Your task to perform on an android device: change notification settings in the gmail app Image 0: 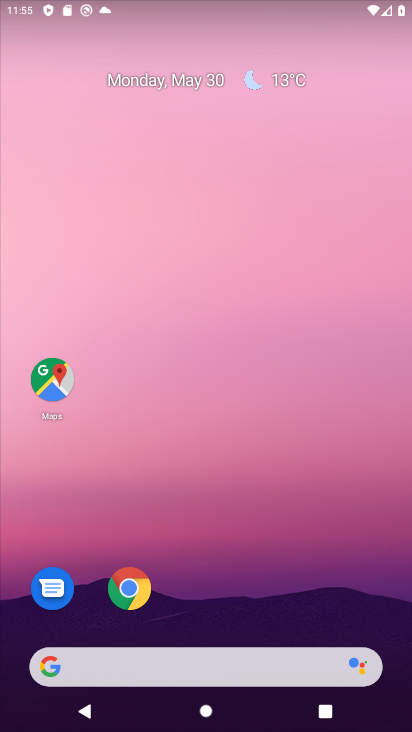
Step 0: drag from (399, 667) to (325, 46)
Your task to perform on an android device: change notification settings in the gmail app Image 1: 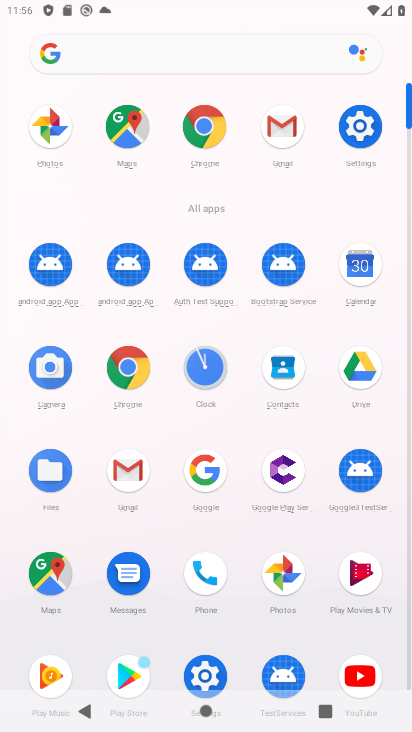
Step 1: click (138, 468)
Your task to perform on an android device: change notification settings in the gmail app Image 2: 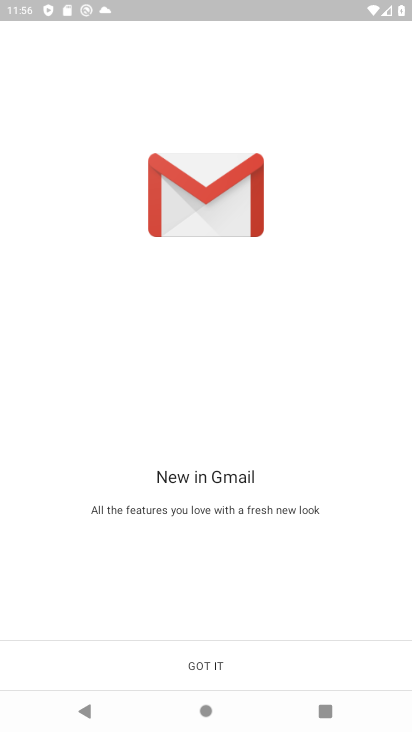
Step 2: click (220, 661)
Your task to perform on an android device: change notification settings in the gmail app Image 3: 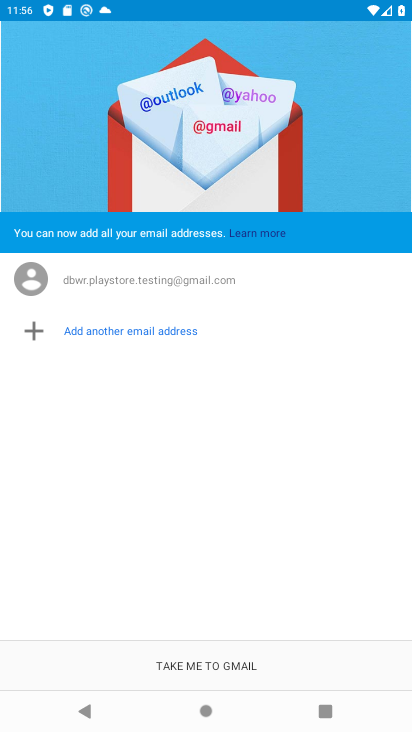
Step 3: click (220, 662)
Your task to perform on an android device: change notification settings in the gmail app Image 4: 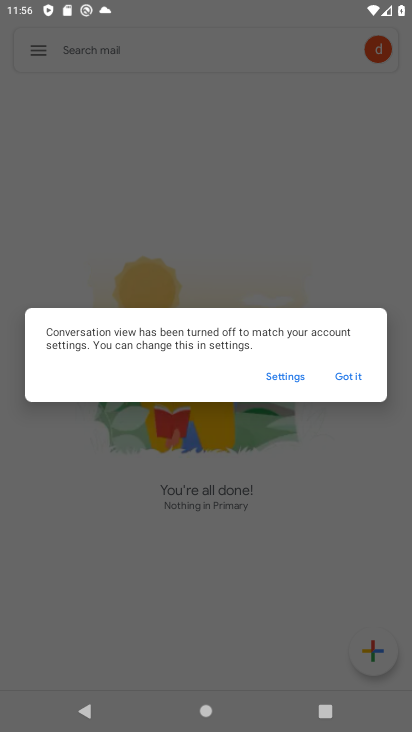
Step 4: click (351, 365)
Your task to perform on an android device: change notification settings in the gmail app Image 5: 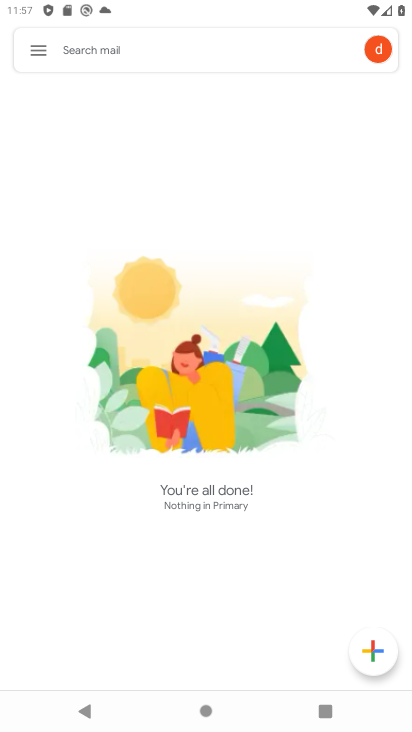
Step 5: press back button
Your task to perform on an android device: change notification settings in the gmail app Image 6: 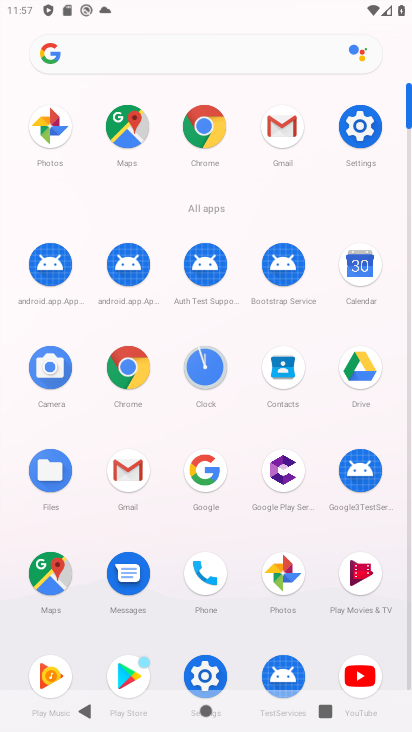
Step 6: click (138, 472)
Your task to perform on an android device: change notification settings in the gmail app Image 7: 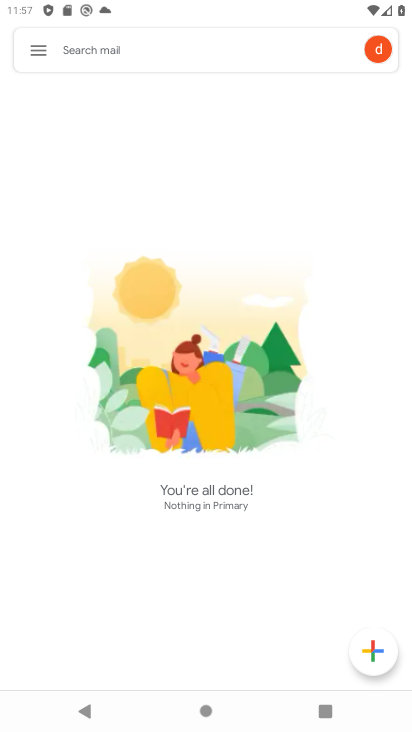
Step 7: click (24, 51)
Your task to perform on an android device: change notification settings in the gmail app Image 8: 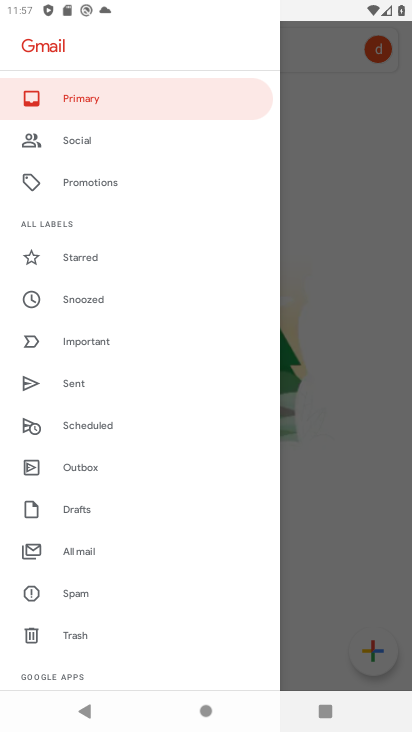
Step 8: drag from (224, 593) to (234, 316)
Your task to perform on an android device: change notification settings in the gmail app Image 9: 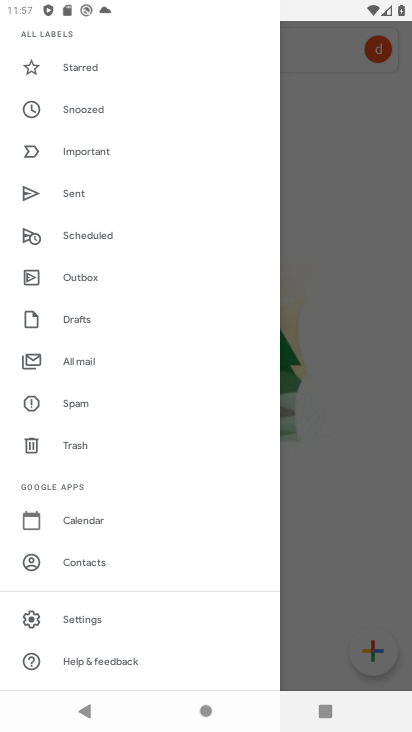
Step 9: click (82, 615)
Your task to perform on an android device: change notification settings in the gmail app Image 10: 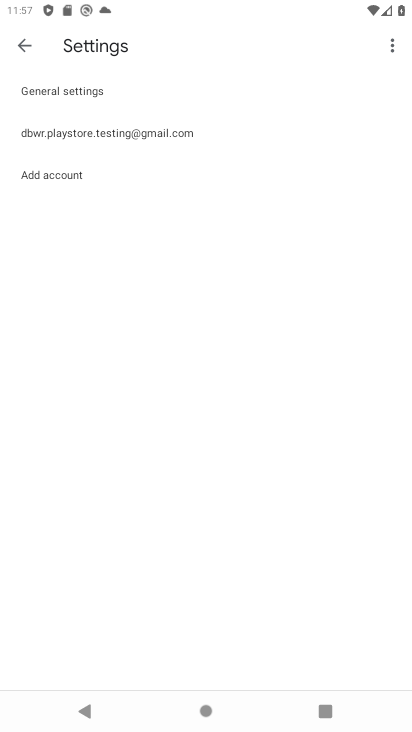
Step 10: click (80, 88)
Your task to perform on an android device: change notification settings in the gmail app Image 11: 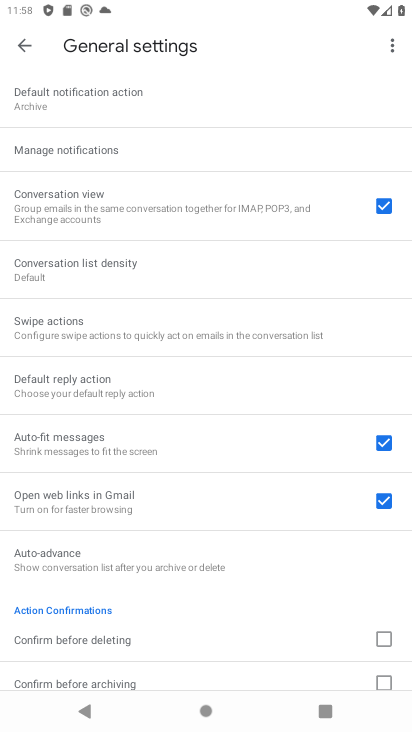
Step 11: drag from (223, 616) to (211, 313)
Your task to perform on an android device: change notification settings in the gmail app Image 12: 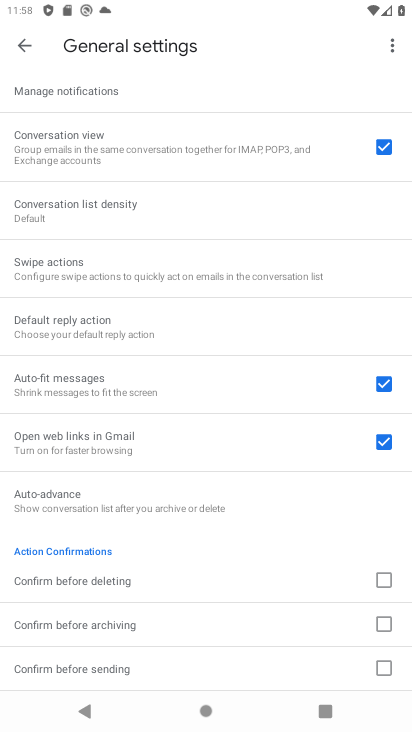
Step 12: drag from (143, 159) to (158, 452)
Your task to perform on an android device: change notification settings in the gmail app Image 13: 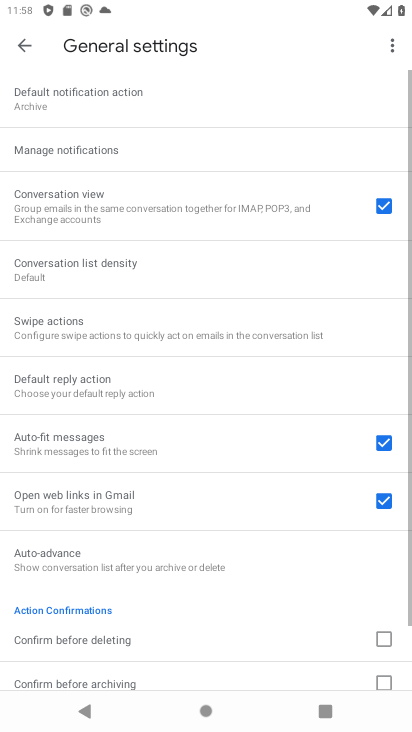
Step 13: click (90, 148)
Your task to perform on an android device: change notification settings in the gmail app Image 14: 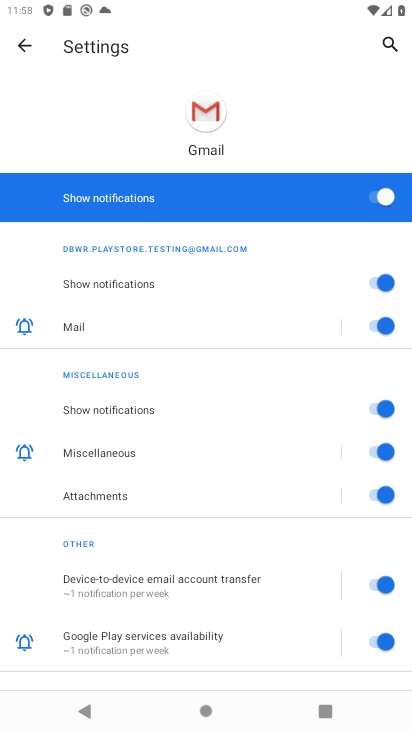
Step 14: click (373, 198)
Your task to perform on an android device: change notification settings in the gmail app Image 15: 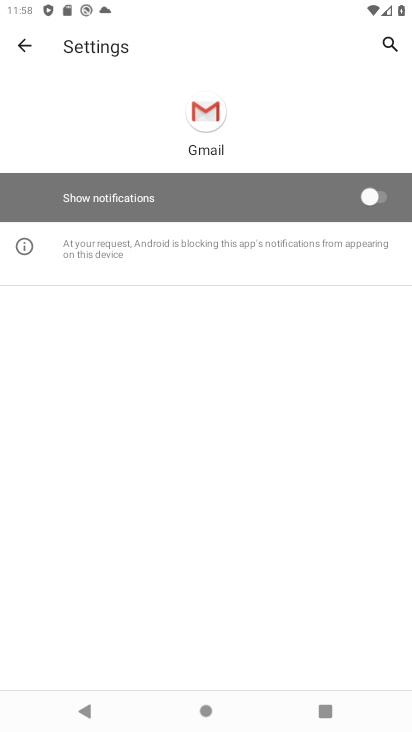
Step 15: task complete